Your task to perform on an android device: open app "Viber Messenger" (install if not already installed) Image 0: 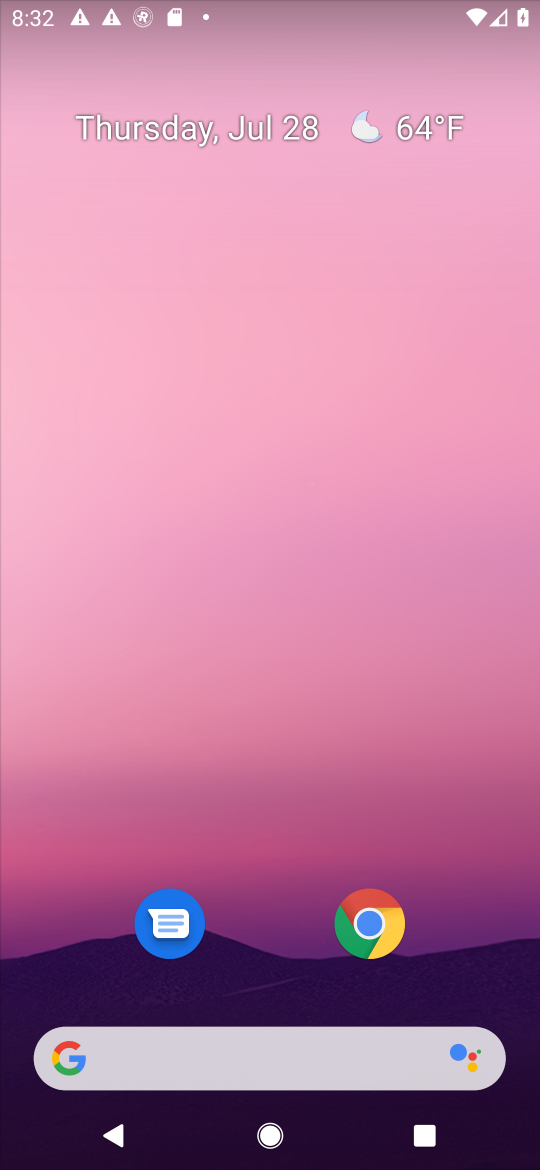
Step 0: drag from (447, 834) to (444, 140)
Your task to perform on an android device: open app "Viber Messenger" (install if not already installed) Image 1: 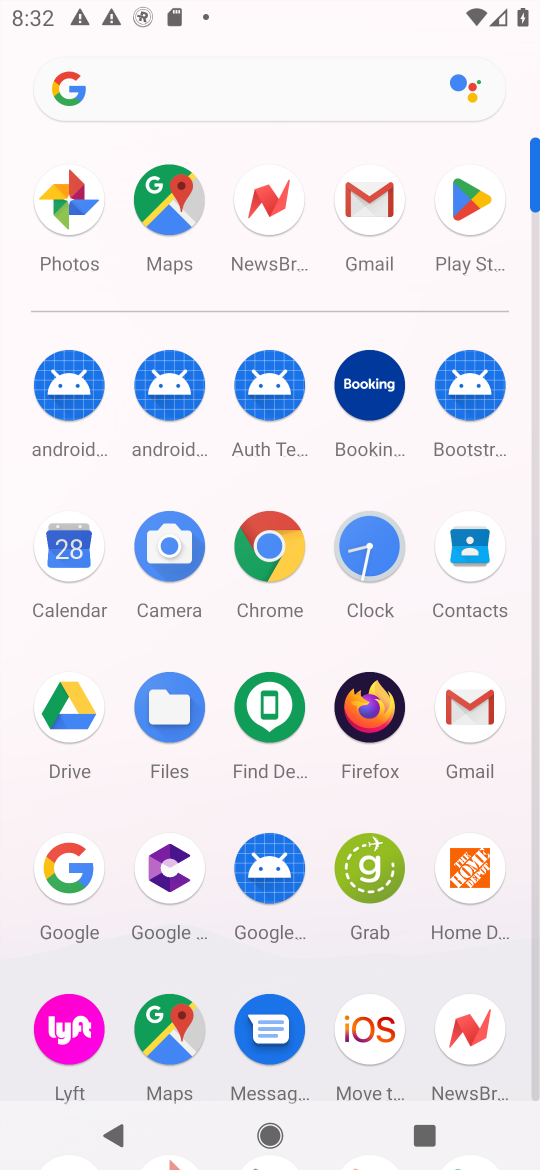
Step 1: click (457, 200)
Your task to perform on an android device: open app "Viber Messenger" (install if not already installed) Image 2: 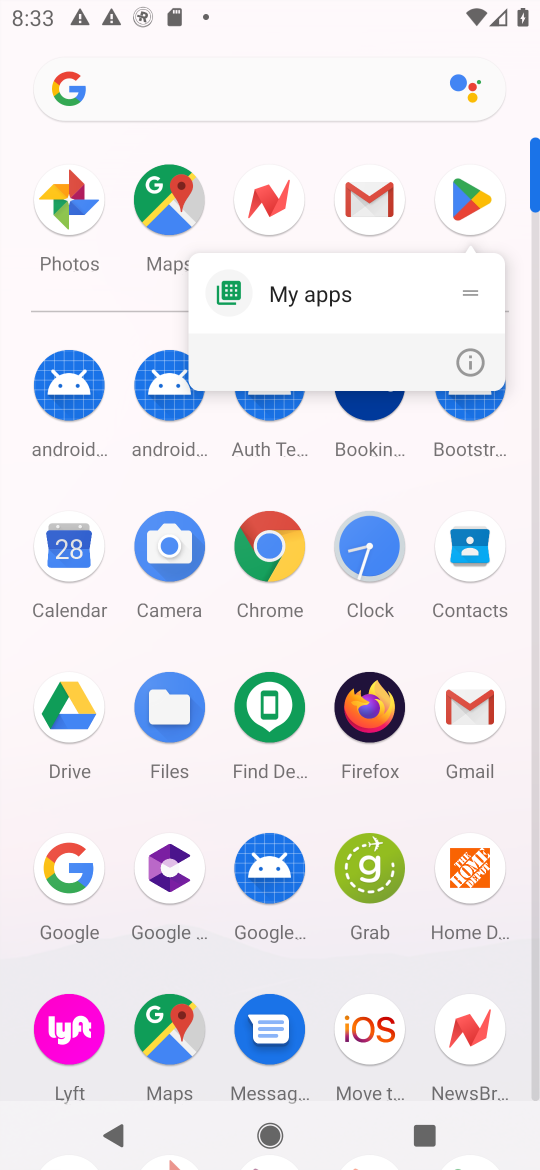
Step 2: click (468, 200)
Your task to perform on an android device: open app "Viber Messenger" (install if not already installed) Image 3: 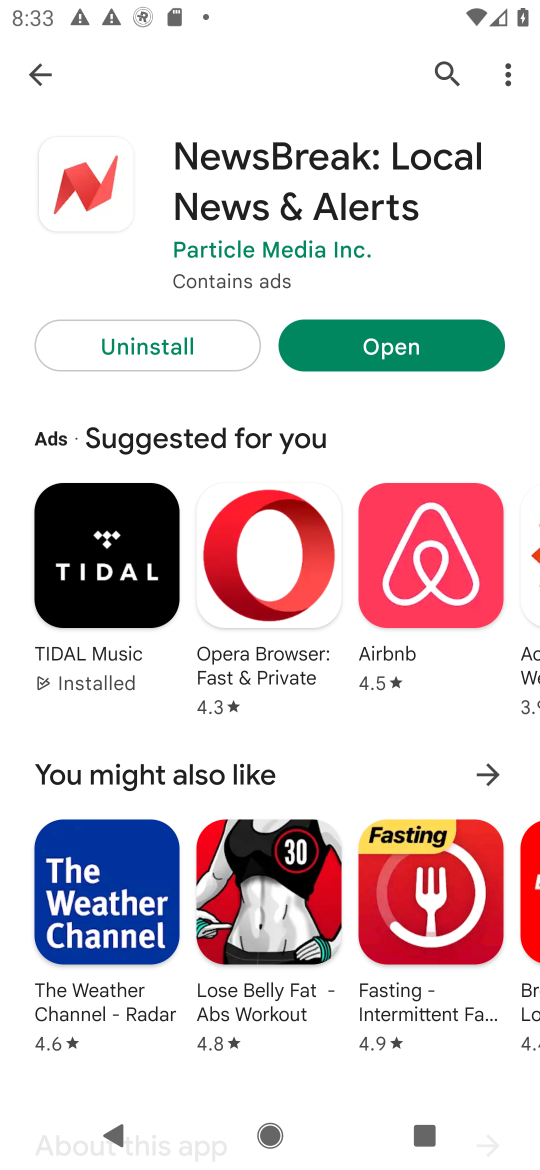
Step 3: click (445, 73)
Your task to perform on an android device: open app "Viber Messenger" (install if not already installed) Image 4: 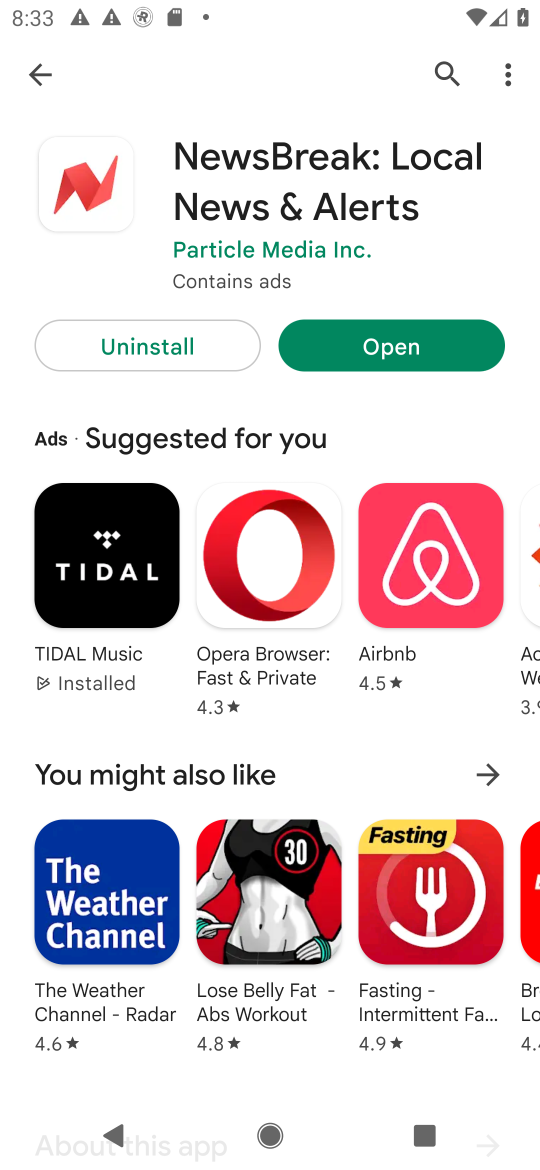
Step 4: click (329, 74)
Your task to perform on an android device: open app "Viber Messenger" (install if not already installed) Image 5: 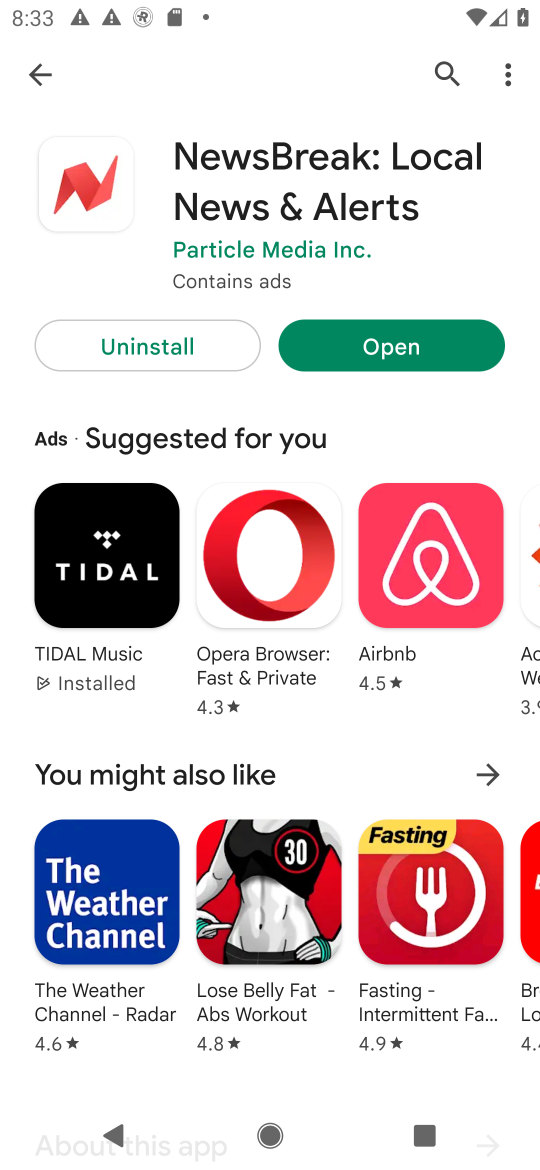
Step 5: click (435, 69)
Your task to perform on an android device: open app "Viber Messenger" (install if not already installed) Image 6: 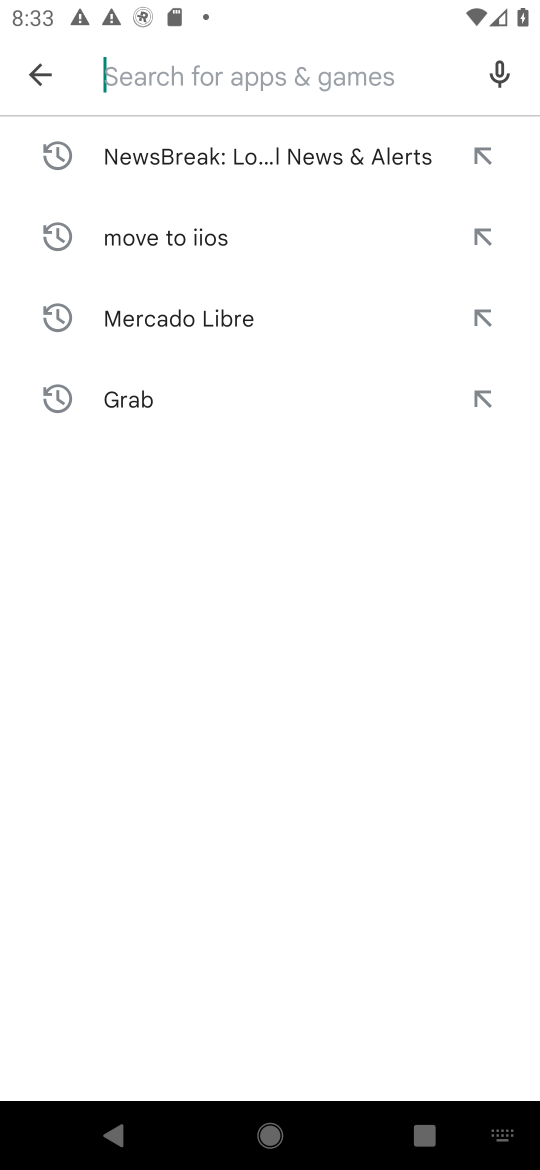
Step 6: type "Viber Messenger"
Your task to perform on an android device: open app "Viber Messenger" (install if not already installed) Image 7: 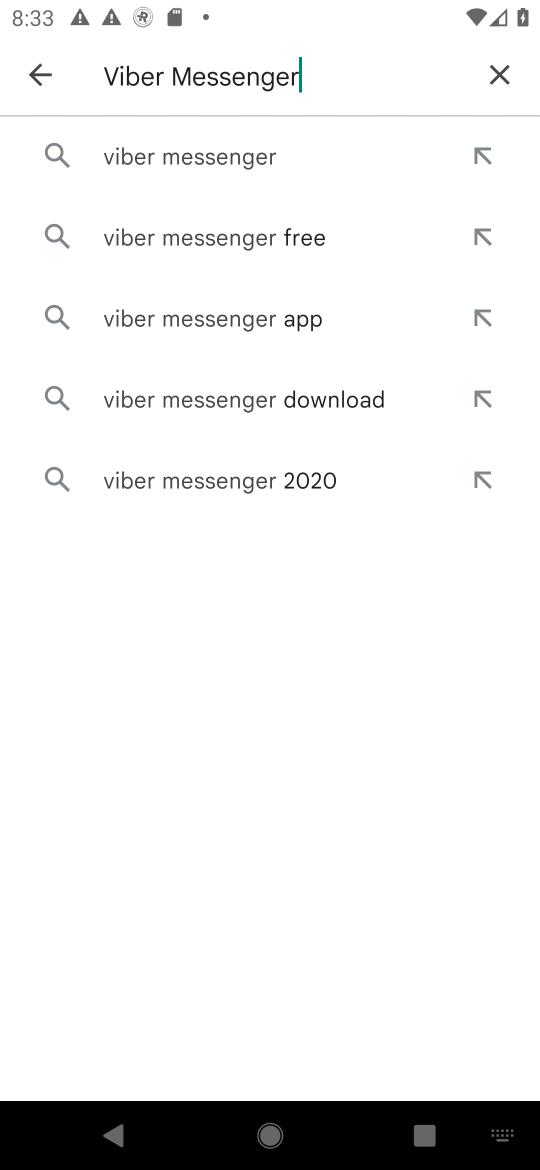
Step 7: press enter
Your task to perform on an android device: open app "Viber Messenger" (install if not already installed) Image 8: 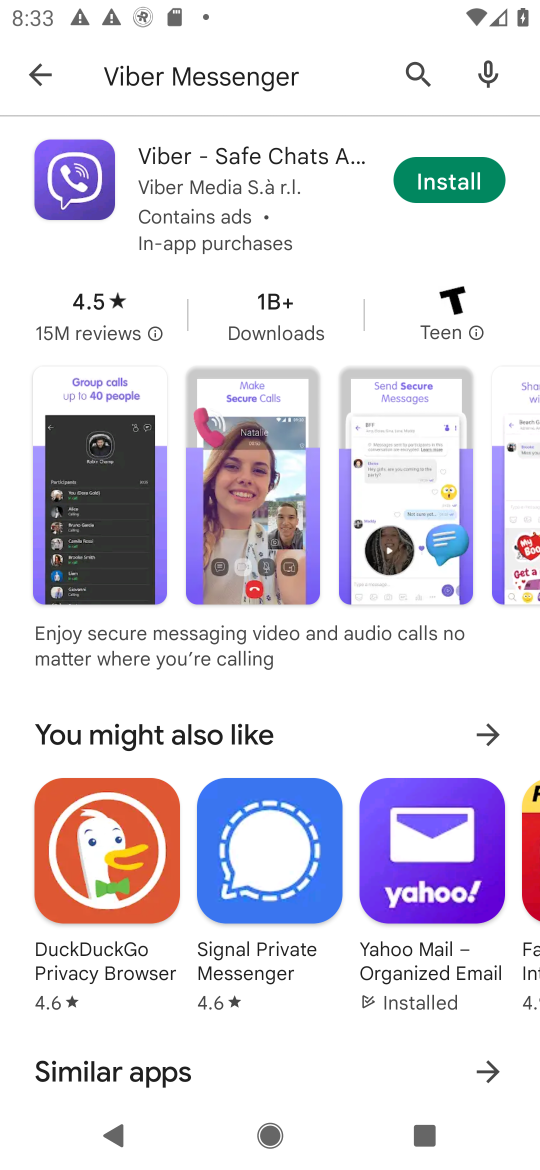
Step 8: click (445, 182)
Your task to perform on an android device: open app "Viber Messenger" (install if not already installed) Image 9: 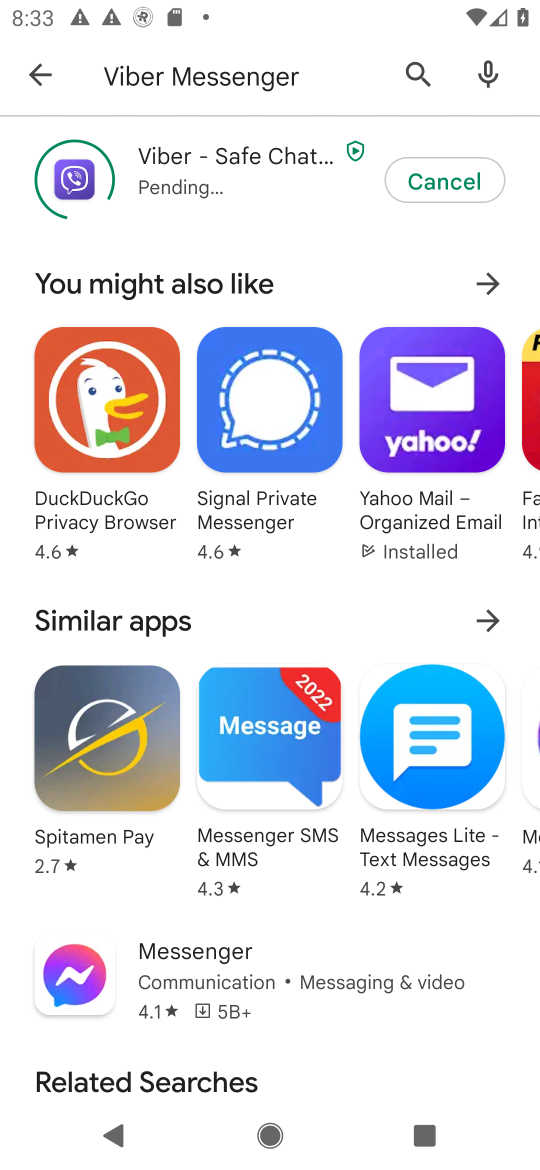
Step 9: click (256, 159)
Your task to perform on an android device: open app "Viber Messenger" (install if not already installed) Image 10: 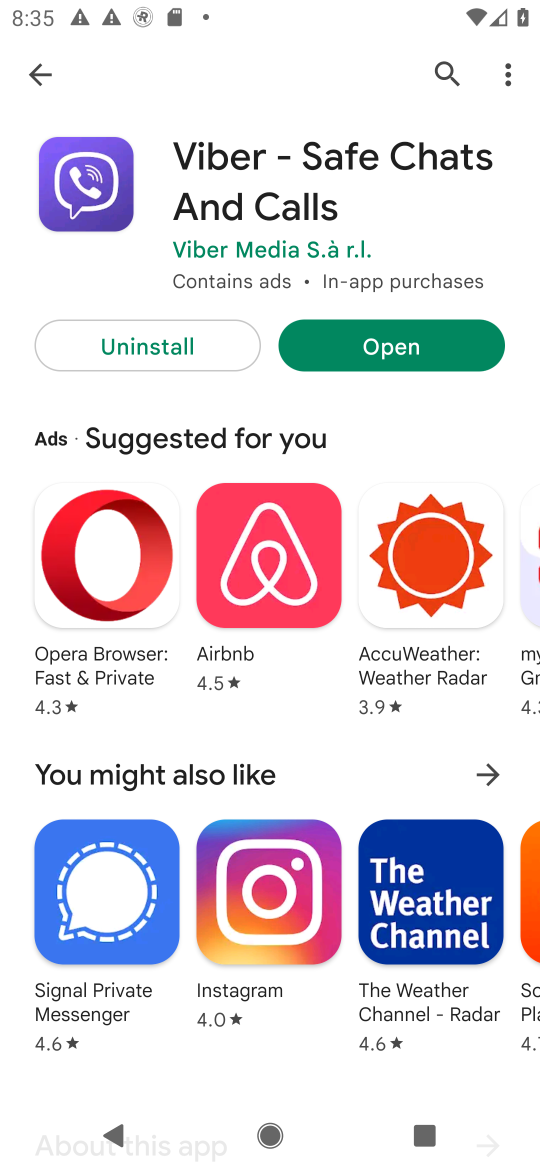
Step 10: click (365, 328)
Your task to perform on an android device: open app "Viber Messenger" (install if not already installed) Image 11: 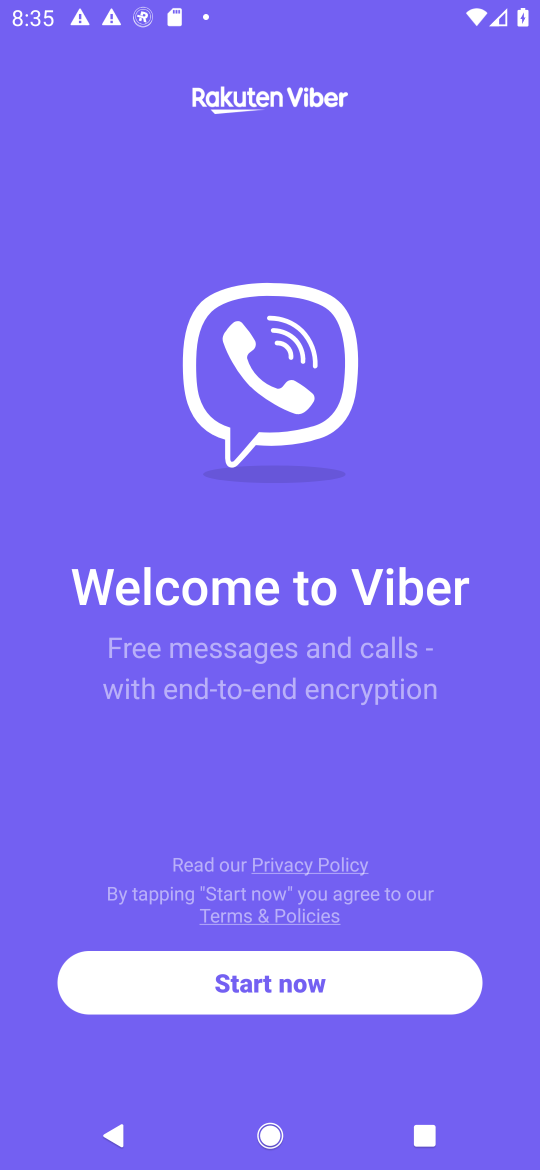
Step 11: task complete